Your task to perform on an android device: When is my next appointment? Image 0: 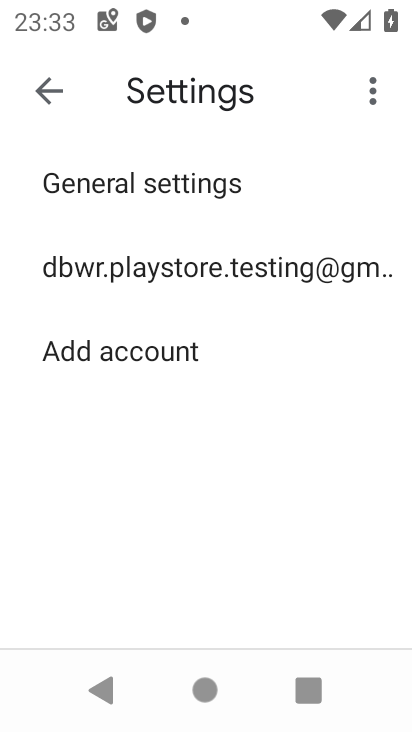
Step 0: press home button
Your task to perform on an android device: When is my next appointment? Image 1: 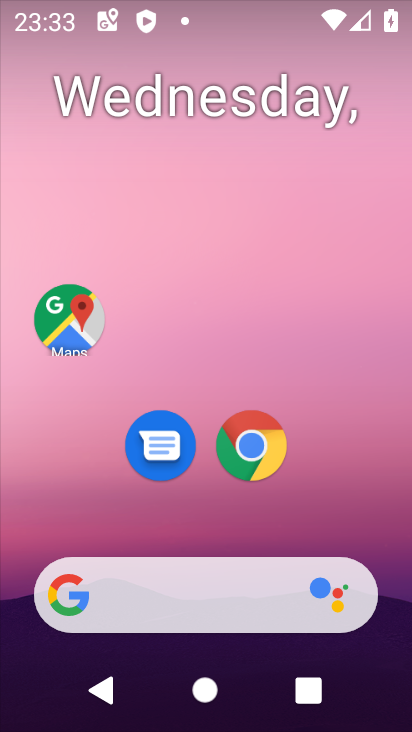
Step 1: drag from (268, 497) to (286, 160)
Your task to perform on an android device: When is my next appointment? Image 2: 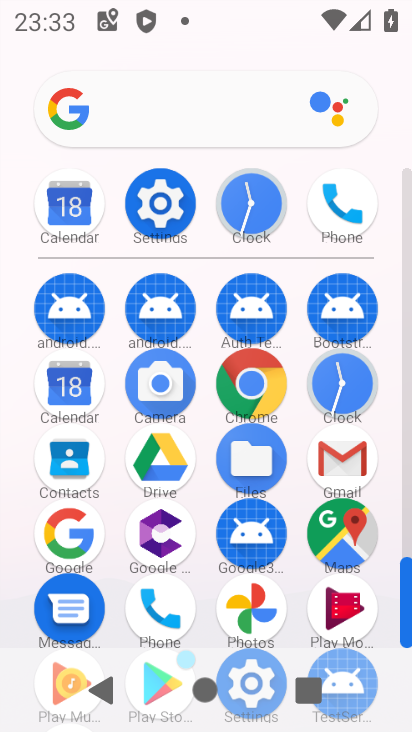
Step 2: click (66, 386)
Your task to perform on an android device: When is my next appointment? Image 3: 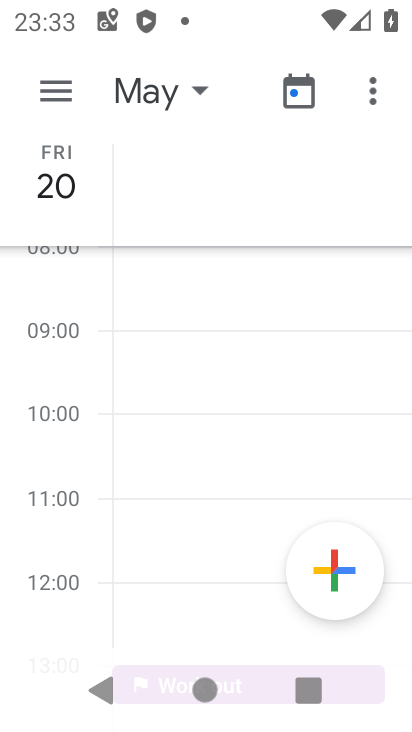
Step 3: click (50, 79)
Your task to perform on an android device: When is my next appointment? Image 4: 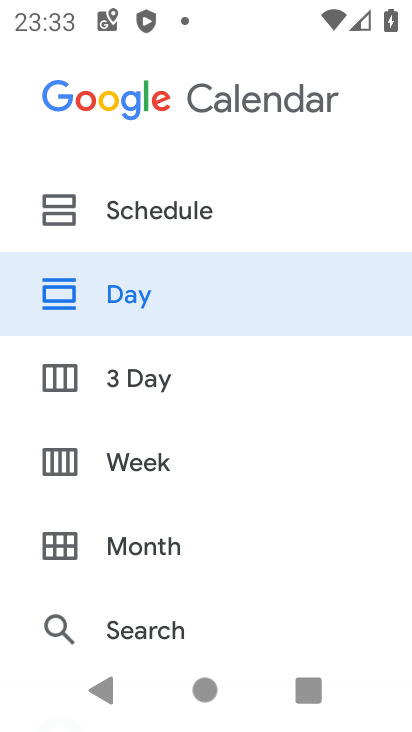
Step 4: click (178, 307)
Your task to perform on an android device: When is my next appointment? Image 5: 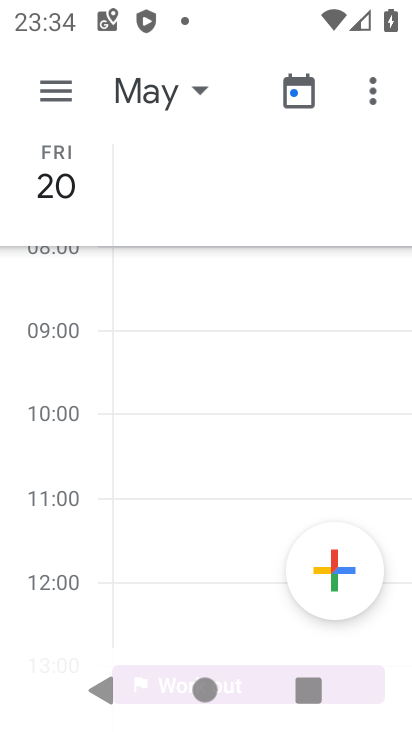
Step 5: task complete